Your task to perform on an android device: Show me the alarms in the clock app Image 0: 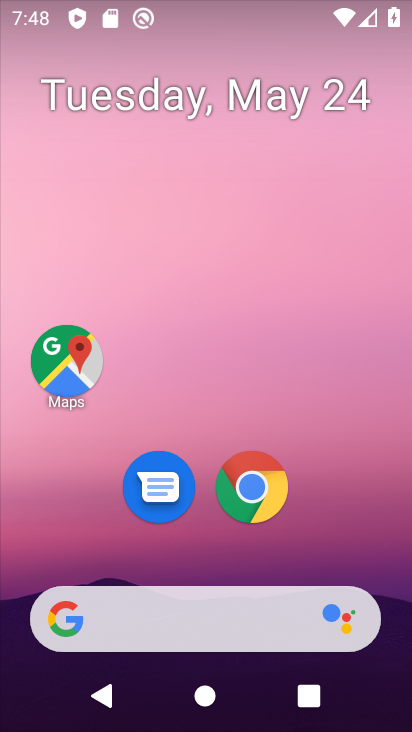
Step 0: drag from (117, 462) to (329, 54)
Your task to perform on an android device: Show me the alarms in the clock app Image 1: 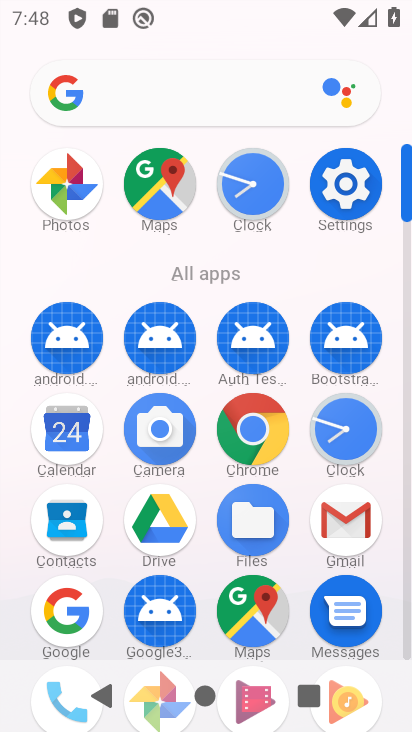
Step 1: click (340, 190)
Your task to perform on an android device: Show me the alarms in the clock app Image 2: 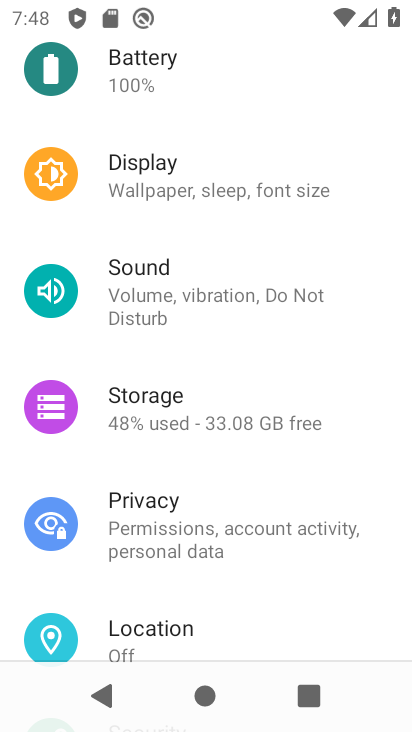
Step 2: press home button
Your task to perform on an android device: Show me the alarms in the clock app Image 3: 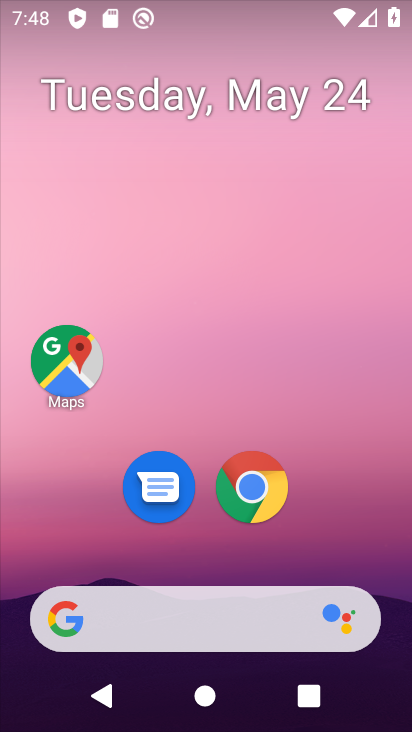
Step 3: drag from (38, 569) to (289, 125)
Your task to perform on an android device: Show me the alarms in the clock app Image 4: 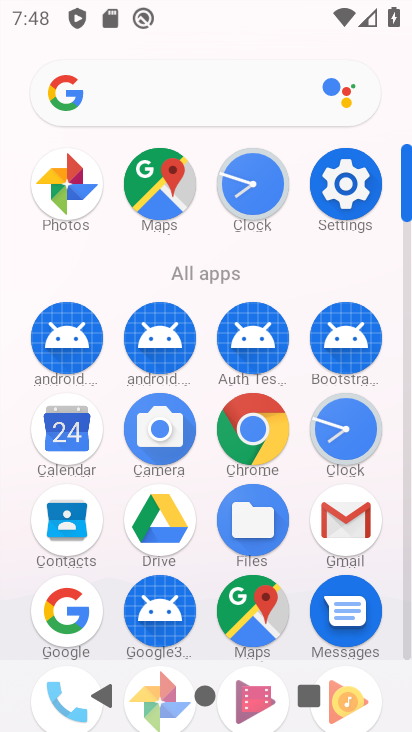
Step 4: click (332, 415)
Your task to perform on an android device: Show me the alarms in the clock app Image 5: 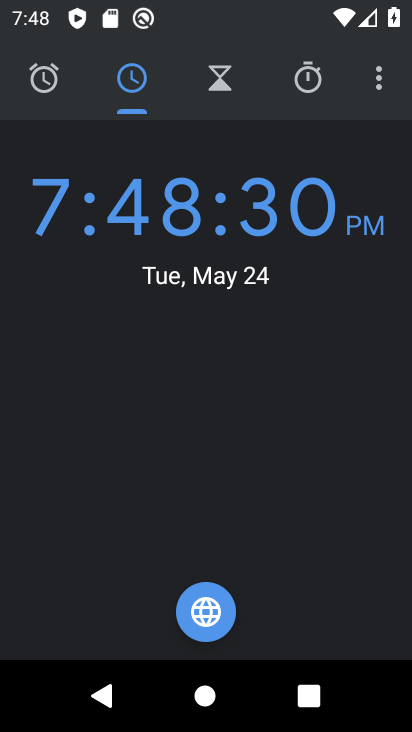
Step 5: click (40, 71)
Your task to perform on an android device: Show me the alarms in the clock app Image 6: 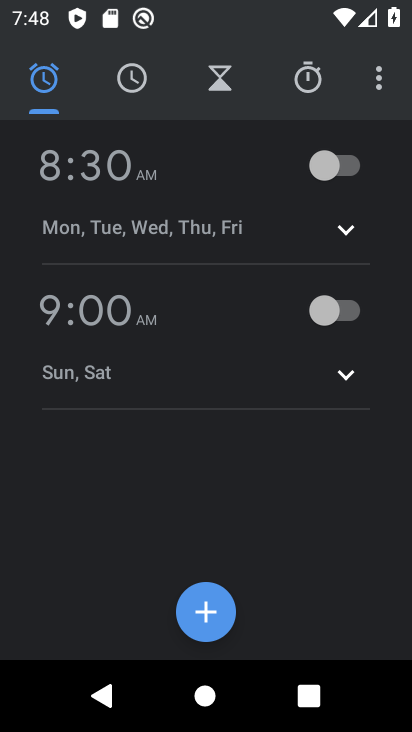
Step 6: task complete